Your task to perform on an android device: toggle priority inbox in the gmail app Image 0: 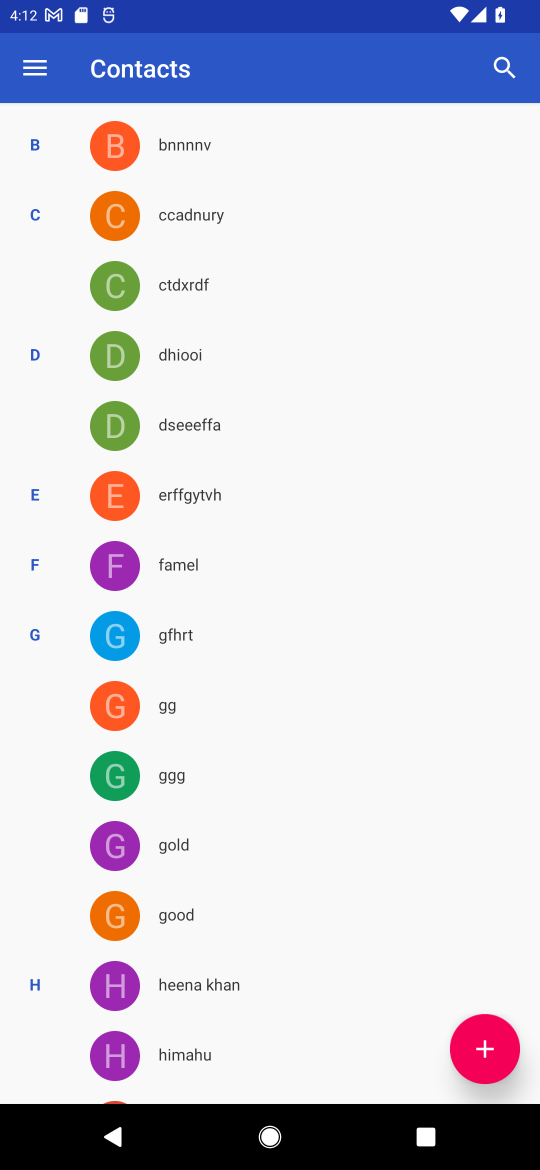
Step 0: press home button
Your task to perform on an android device: toggle priority inbox in the gmail app Image 1: 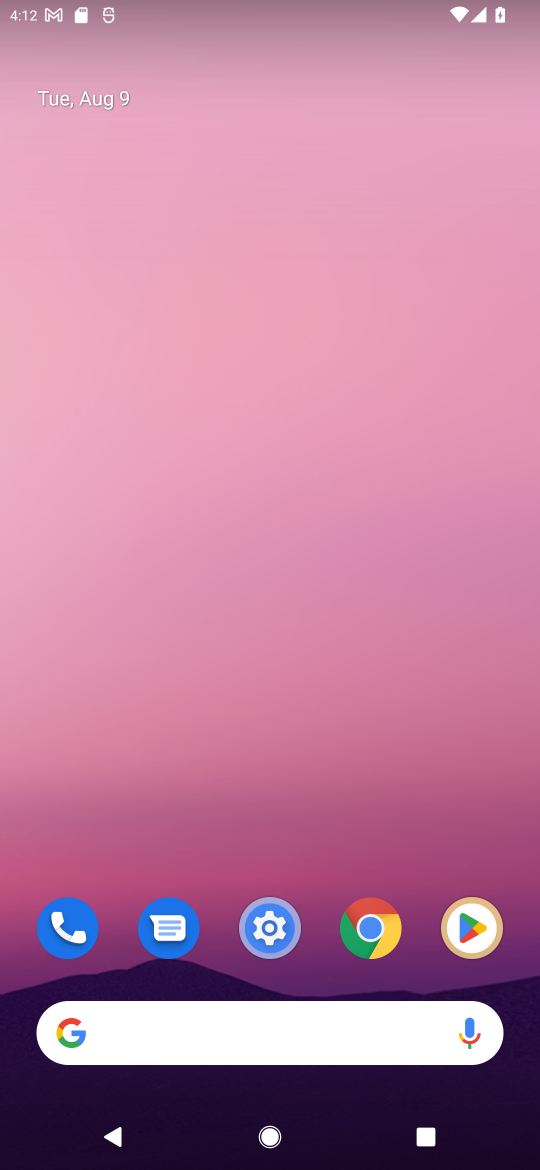
Step 1: drag from (288, 852) to (293, 139)
Your task to perform on an android device: toggle priority inbox in the gmail app Image 2: 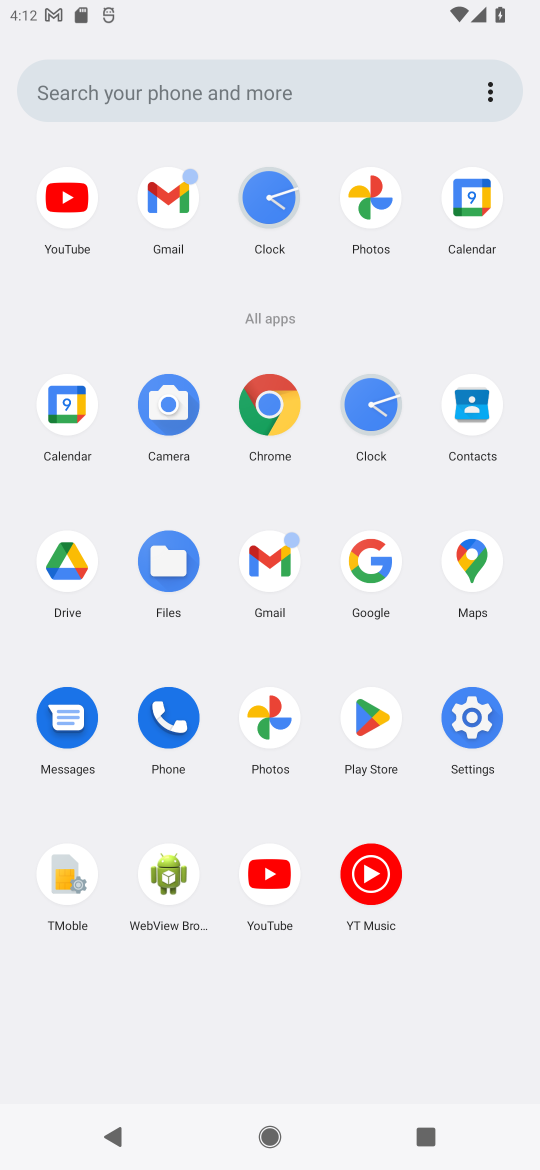
Step 2: click (274, 557)
Your task to perform on an android device: toggle priority inbox in the gmail app Image 3: 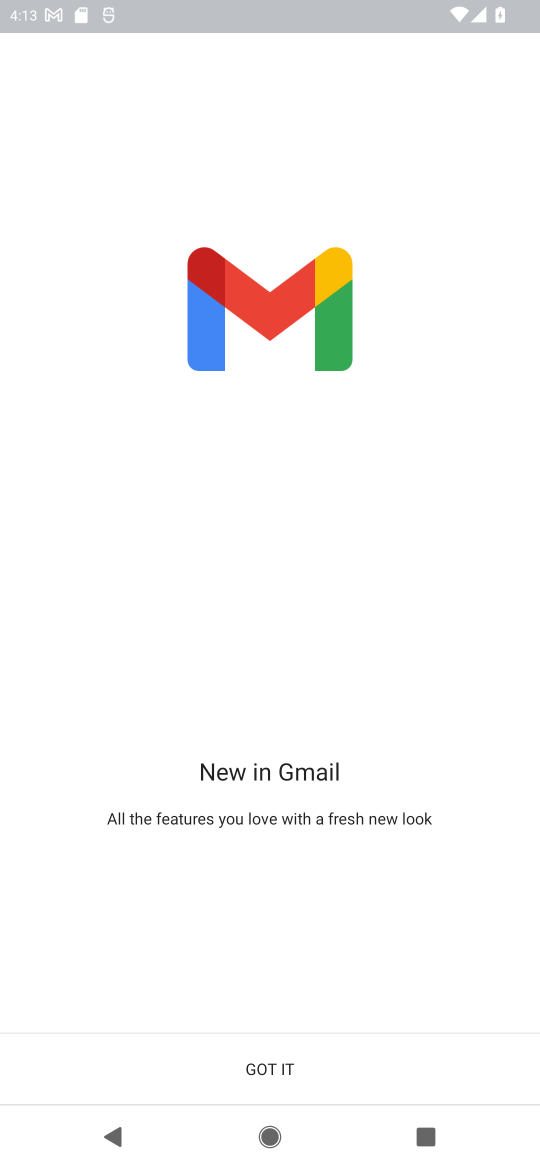
Step 3: click (327, 1070)
Your task to perform on an android device: toggle priority inbox in the gmail app Image 4: 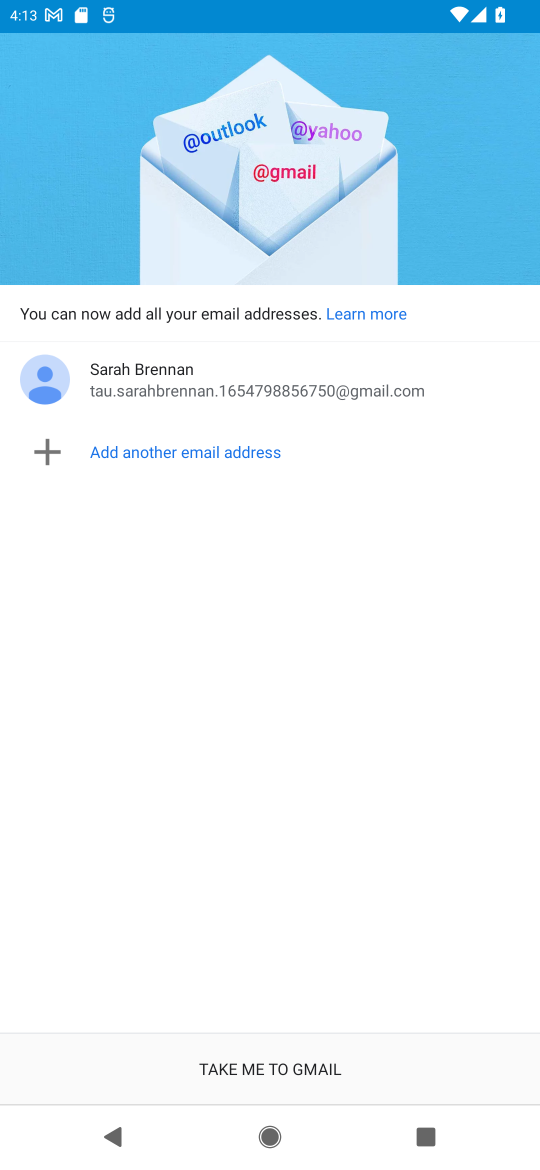
Step 4: click (346, 1068)
Your task to perform on an android device: toggle priority inbox in the gmail app Image 5: 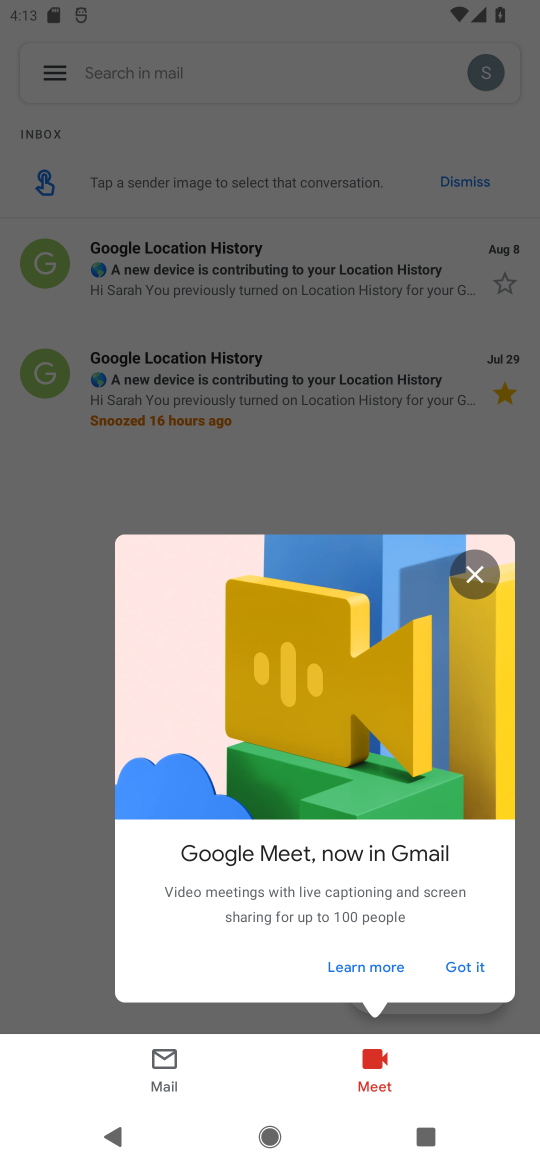
Step 5: click (472, 561)
Your task to perform on an android device: toggle priority inbox in the gmail app Image 6: 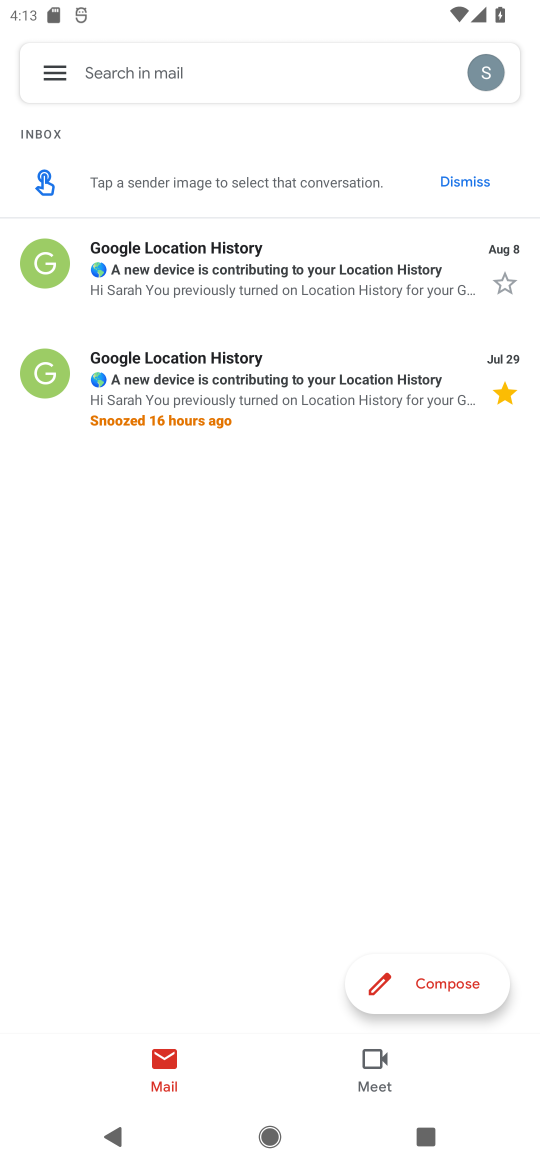
Step 6: click (47, 85)
Your task to perform on an android device: toggle priority inbox in the gmail app Image 7: 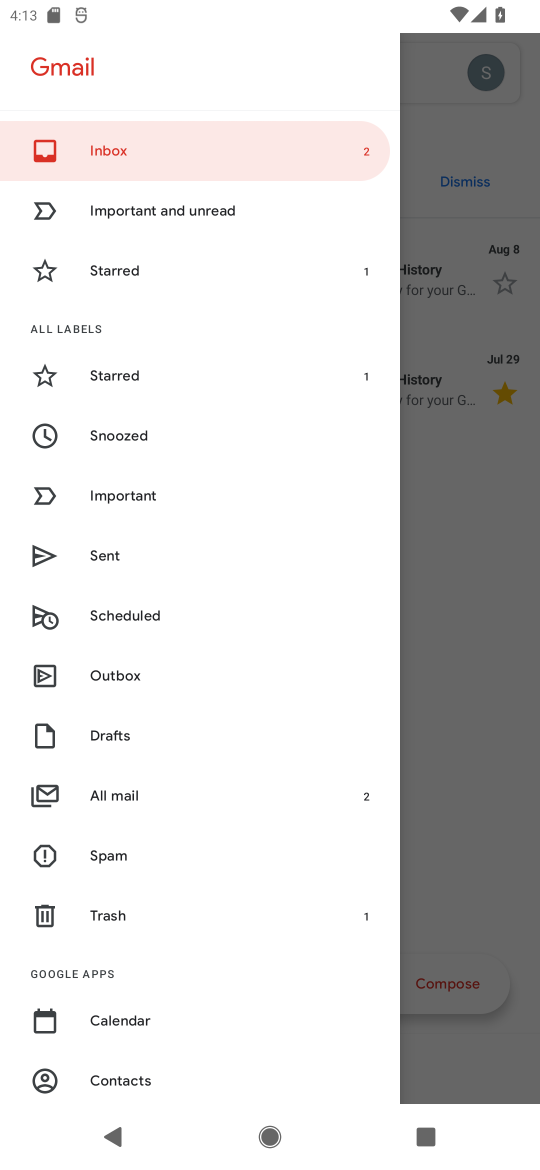
Step 7: drag from (116, 989) to (116, 358)
Your task to perform on an android device: toggle priority inbox in the gmail app Image 8: 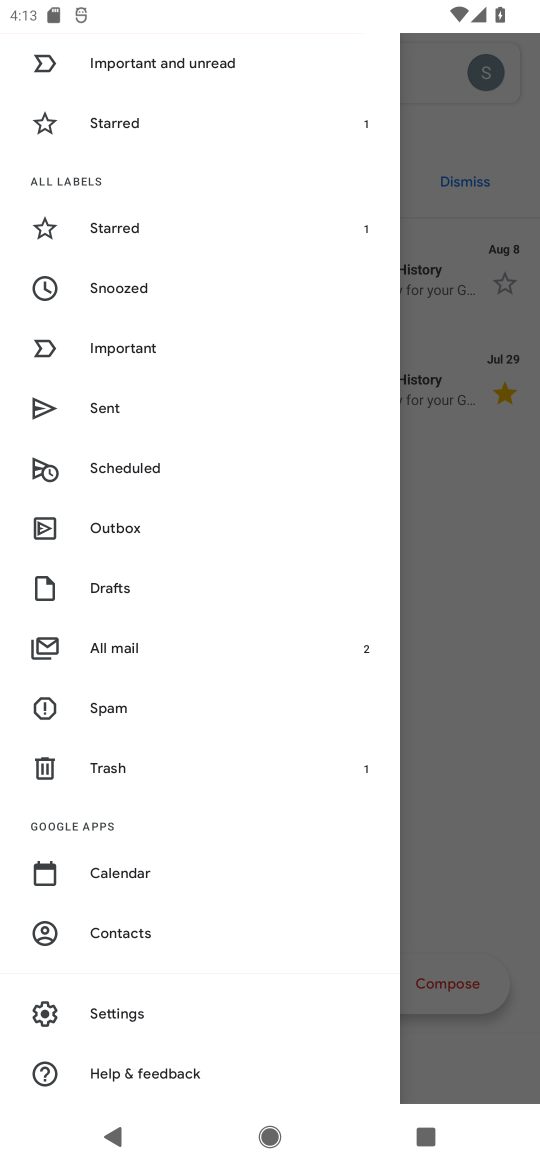
Step 8: click (127, 1004)
Your task to perform on an android device: toggle priority inbox in the gmail app Image 9: 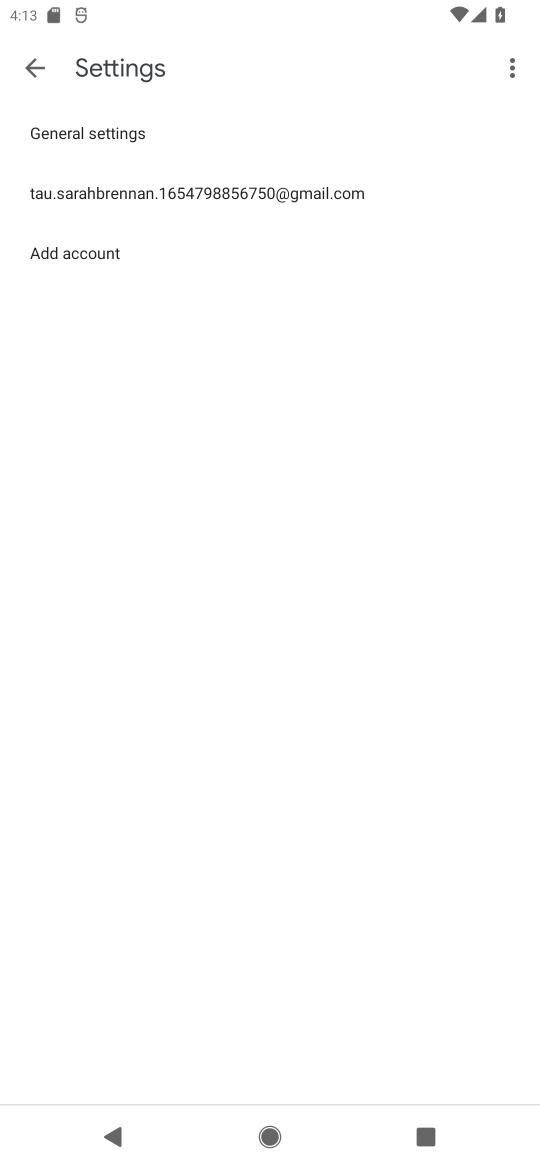
Step 9: click (344, 194)
Your task to perform on an android device: toggle priority inbox in the gmail app Image 10: 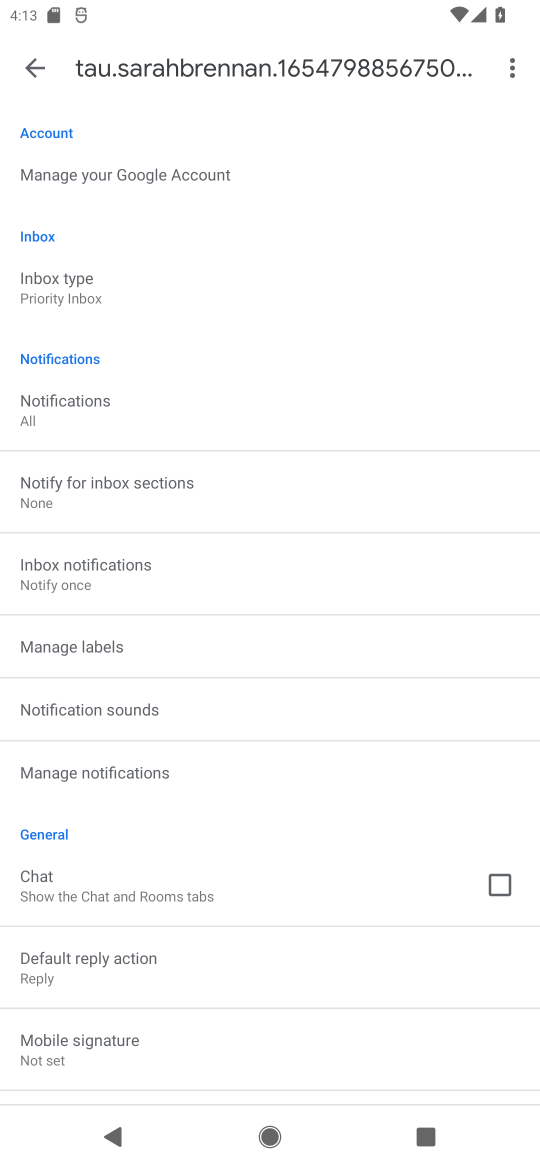
Step 10: click (107, 295)
Your task to perform on an android device: toggle priority inbox in the gmail app Image 11: 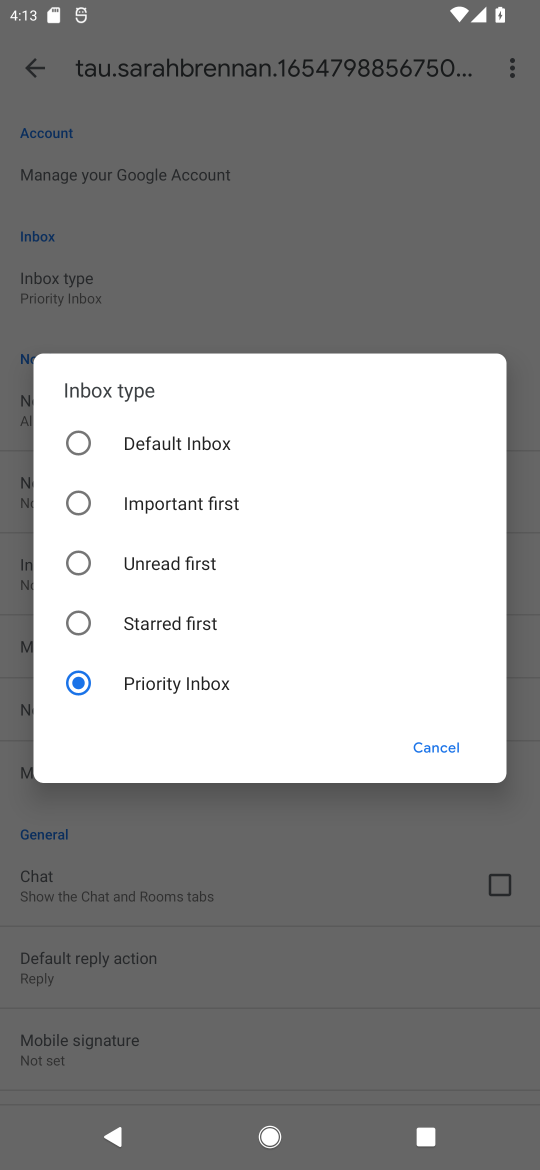
Step 11: click (185, 438)
Your task to perform on an android device: toggle priority inbox in the gmail app Image 12: 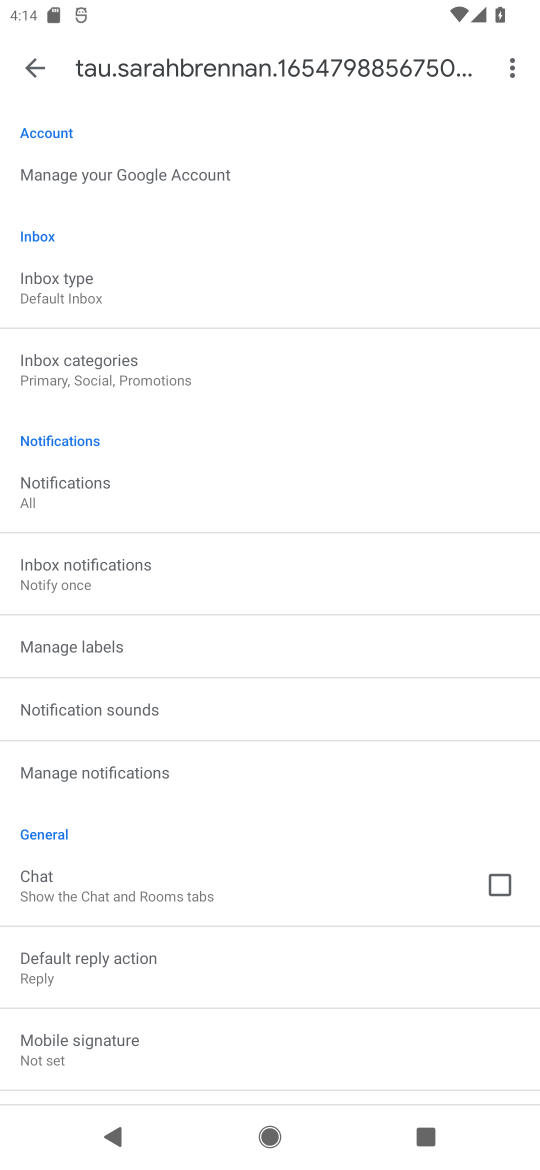
Step 12: click (185, 438)
Your task to perform on an android device: toggle priority inbox in the gmail app Image 13: 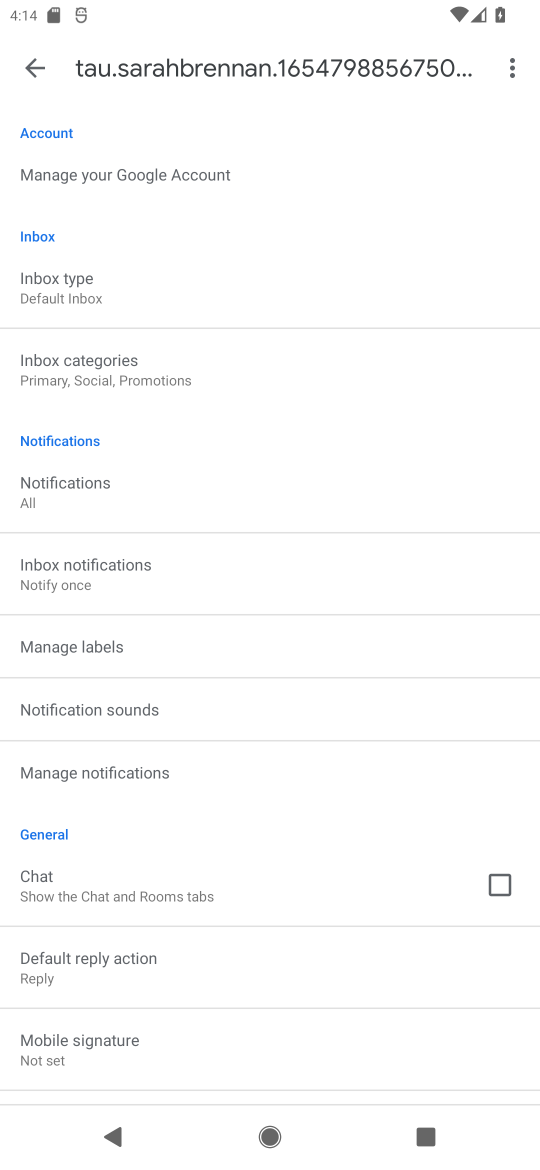
Step 13: task complete